Your task to perform on an android device: Do I have any events this weekend? Image 0: 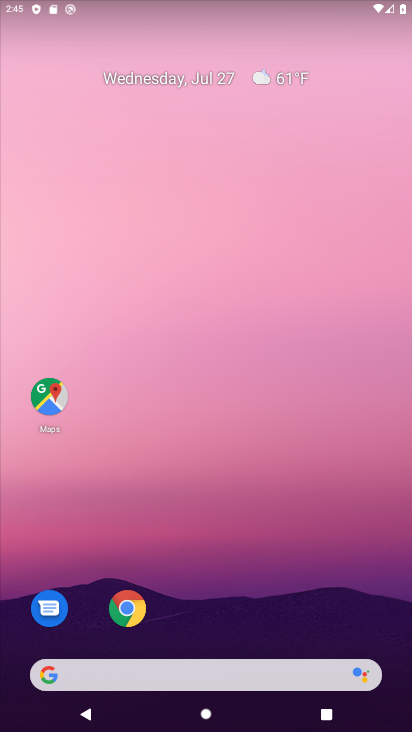
Step 0: drag from (257, 615) to (148, 40)
Your task to perform on an android device: Do I have any events this weekend? Image 1: 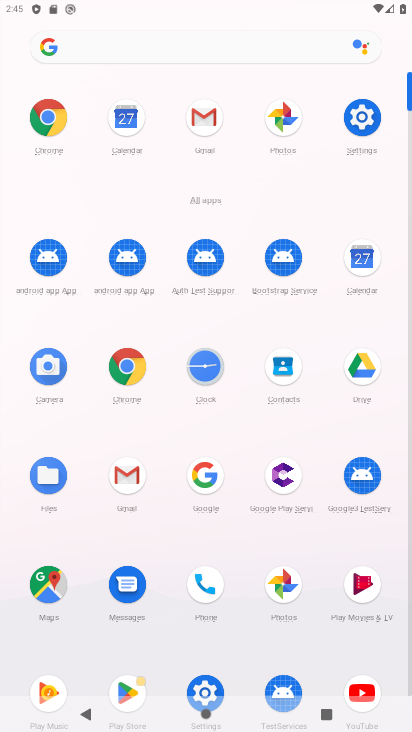
Step 1: click (363, 255)
Your task to perform on an android device: Do I have any events this weekend? Image 2: 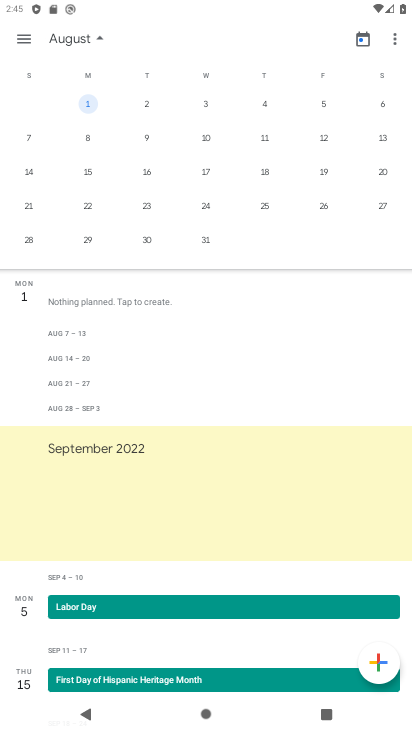
Step 2: click (365, 167)
Your task to perform on an android device: Do I have any events this weekend? Image 3: 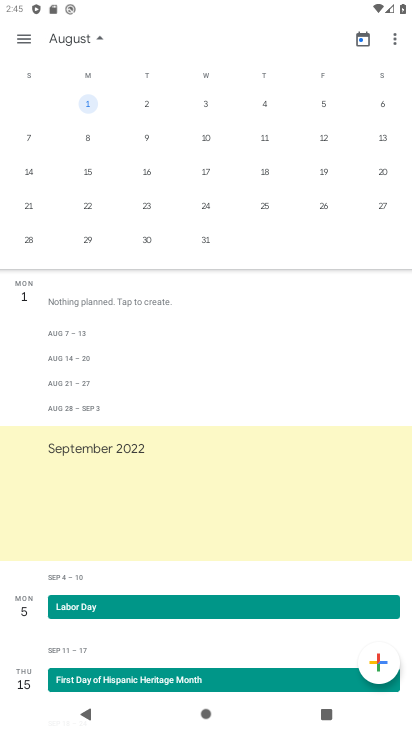
Step 3: drag from (31, 185) to (382, 202)
Your task to perform on an android device: Do I have any events this weekend? Image 4: 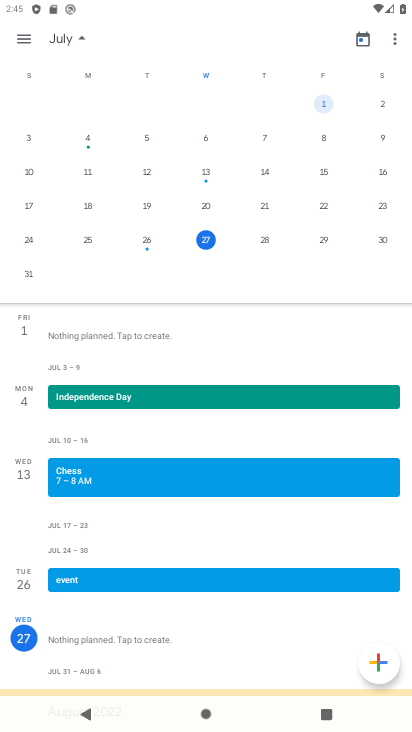
Step 4: click (378, 242)
Your task to perform on an android device: Do I have any events this weekend? Image 5: 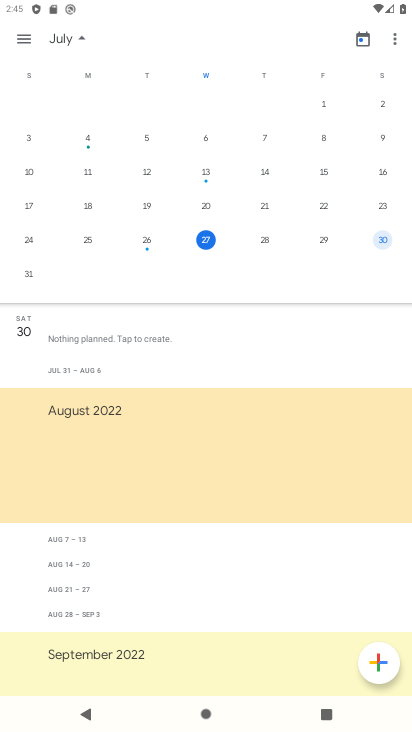
Step 5: task complete